Your task to perform on an android device: Open Google Maps and go to "Timeline" Image 0: 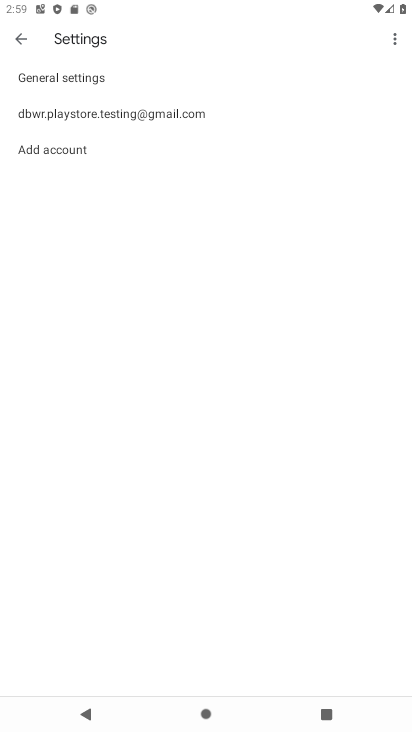
Step 0: press home button
Your task to perform on an android device: Open Google Maps and go to "Timeline" Image 1: 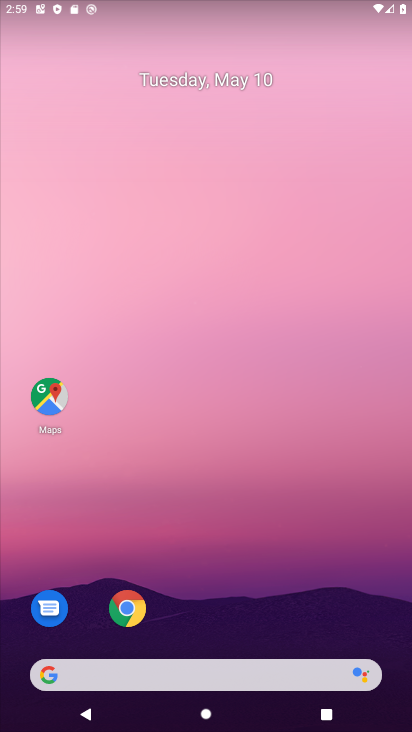
Step 1: click (53, 403)
Your task to perform on an android device: Open Google Maps and go to "Timeline" Image 2: 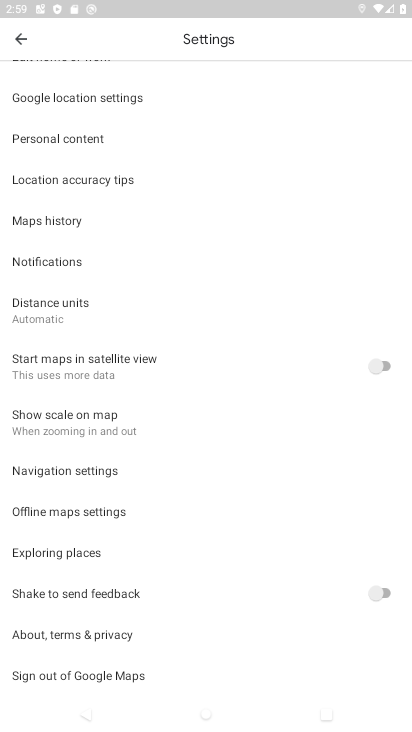
Step 2: click (28, 40)
Your task to perform on an android device: Open Google Maps and go to "Timeline" Image 3: 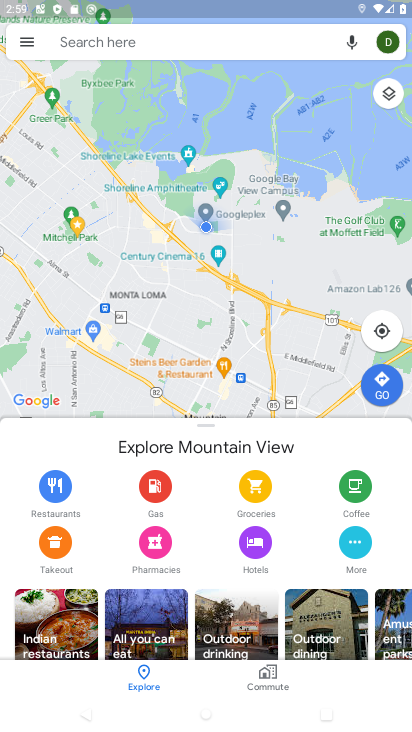
Step 3: click (32, 46)
Your task to perform on an android device: Open Google Maps and go to "Timeline" Image 4: 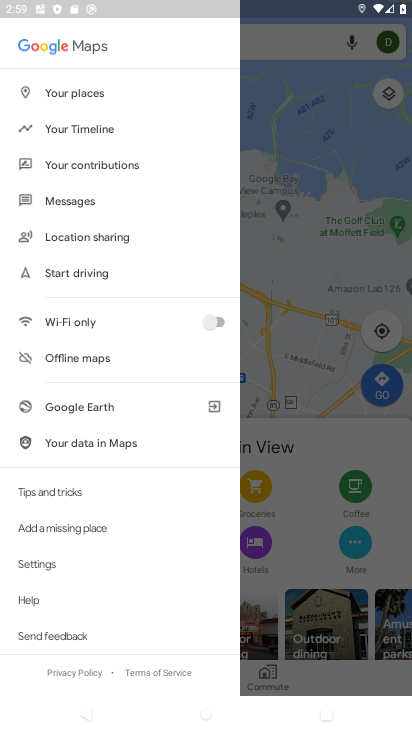
Step 4: click (71, 133)
Your task to perform on an android device: Open Google Maps and go to "Timeline" Image 5: 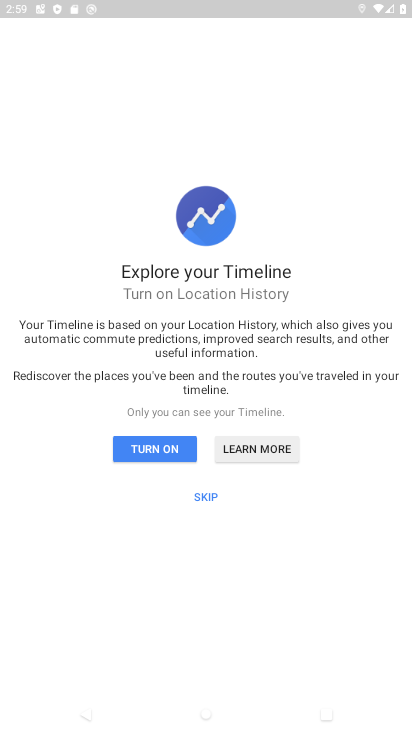
Step 5: click (196, 492)
Your task to perform on an android device: Open Google Maps and go to "Timeline" Image 6: 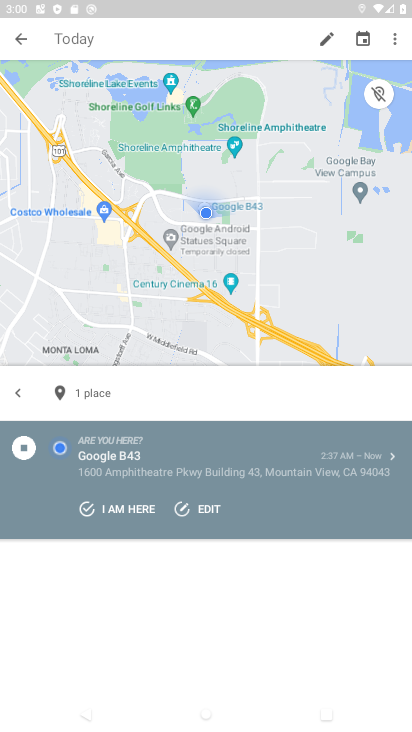
Step 6: task complete